Your task to perform on an android device: toggle data saver in the chrome app Image 0: 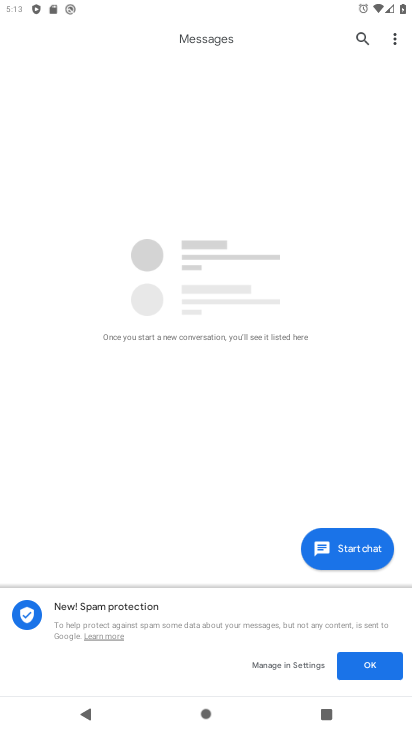
Step 0: press home button
Your task to perform on an android device: toggle data saver in the chrome app Image 1: 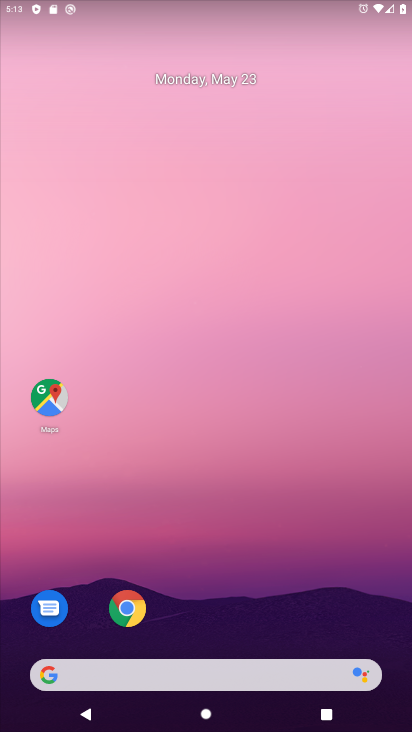
Step 1: drag from (203, 467) to (180, 310)
Your task to perform on an android device: toggle data saver in the chrome app Image 2: 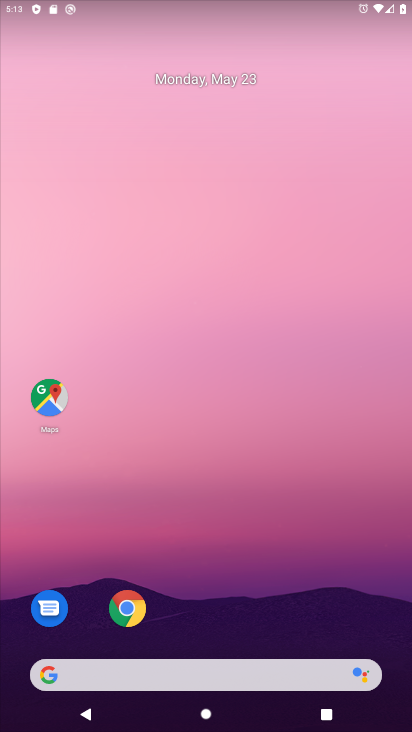
Step 2: drag from (222, 620) to (220, 257)
Your task to perform on an android device: toggle data saver in the chrome app Image 3: 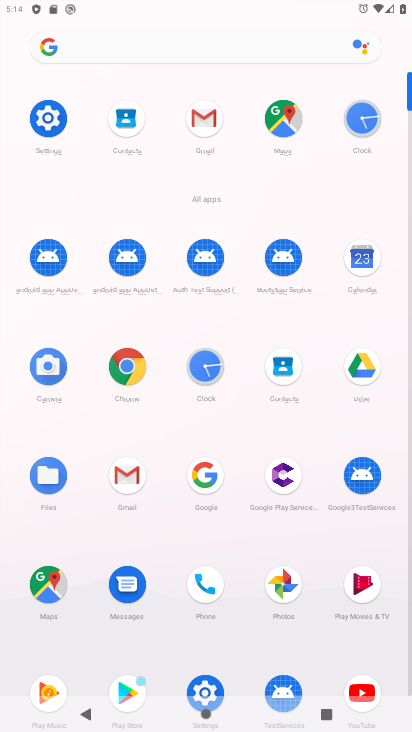
Step 3: click (129, 397)
Your task to perform on an android device: toggle data saver in the chrome app Image 4: 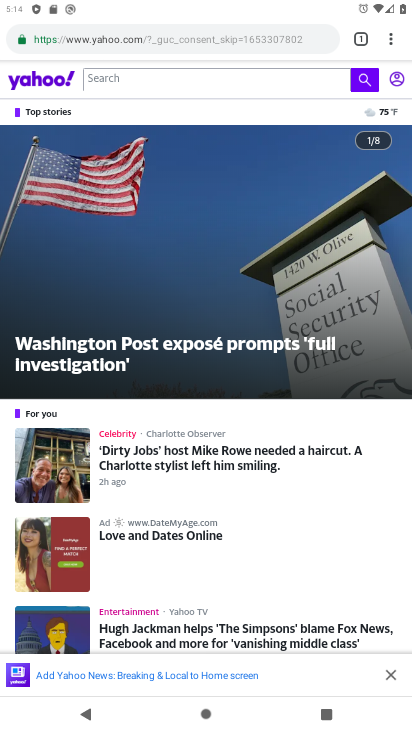
Step 4: click (399, 41)
Your task to perform on an android device: toggle data saver in the chrome app Image 5: 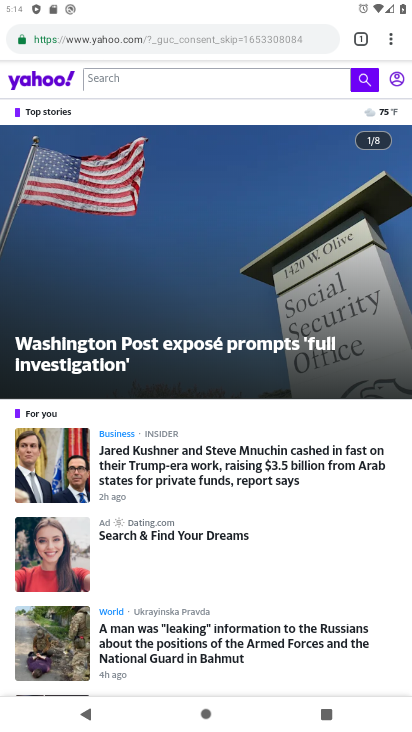
Step 5: click (389, 36)
Your task to perform on an android device: toggle data saver in the chrome app Image 6: 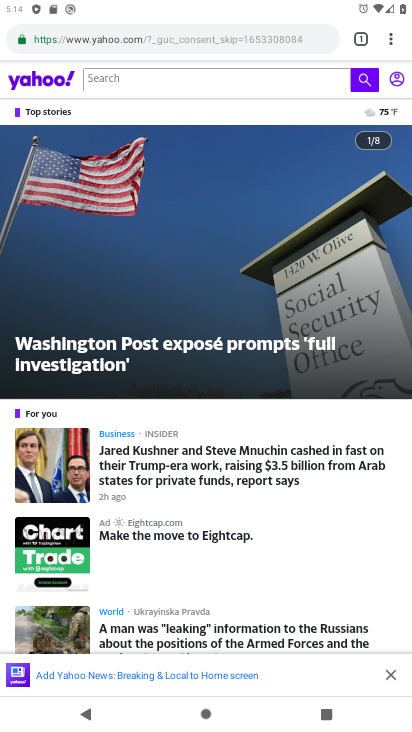
Step 6: click (391, 33)
Your task to perform on an android device: toggle data saver in the chrome app Image 7: 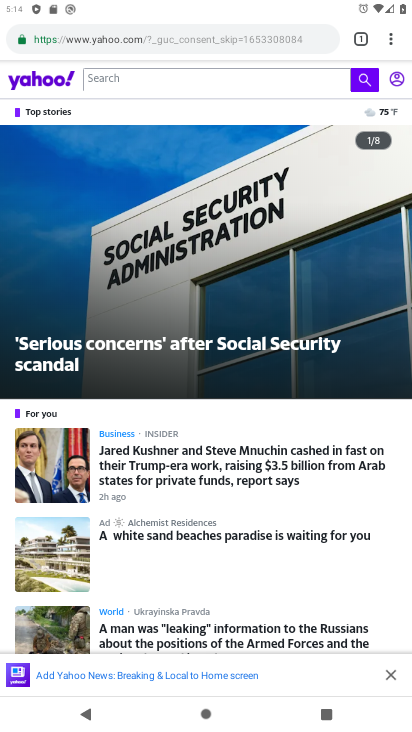
Step 7: click (395, 40)
Your task to perform on an android device: toggle data saver in the chrome app Image 8: 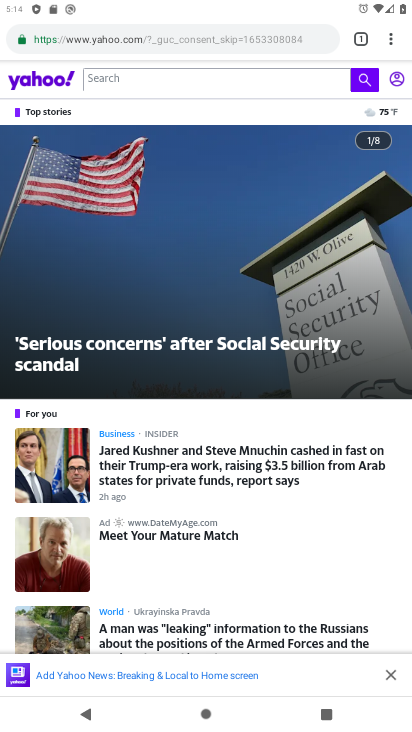
Step 8: click (394, 43)
Your task to perform on an android device: toggle data saver in the chrome app Image 9: 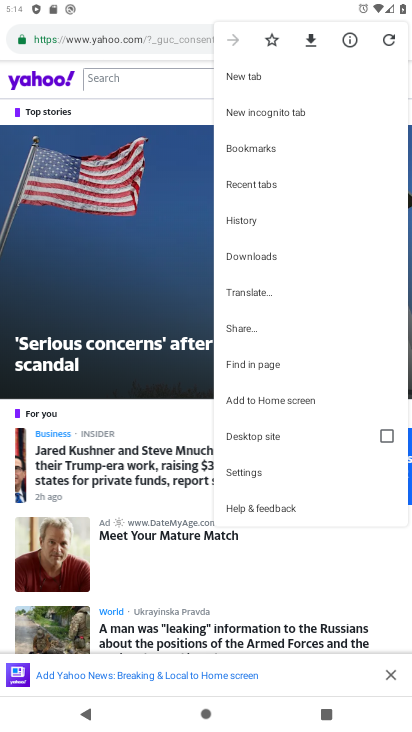
Step 9: click (266, 474)
Your task to perform on an android device: toggle data saver in the chrome app Image 10: 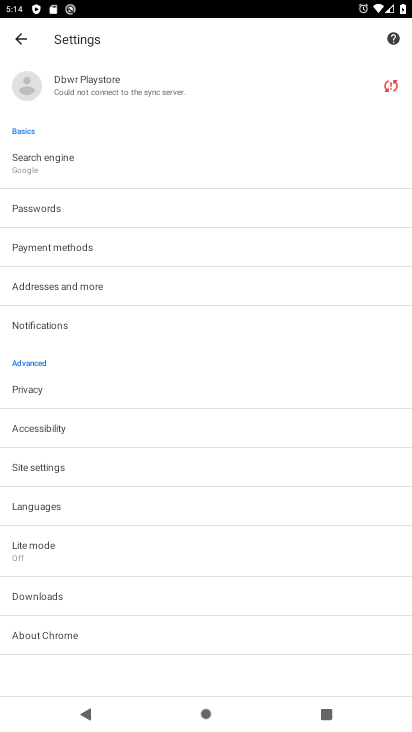
Step 10: click (38, 541)
Your task to perform on an android device: toggle data saver in the chrome app Image 11: 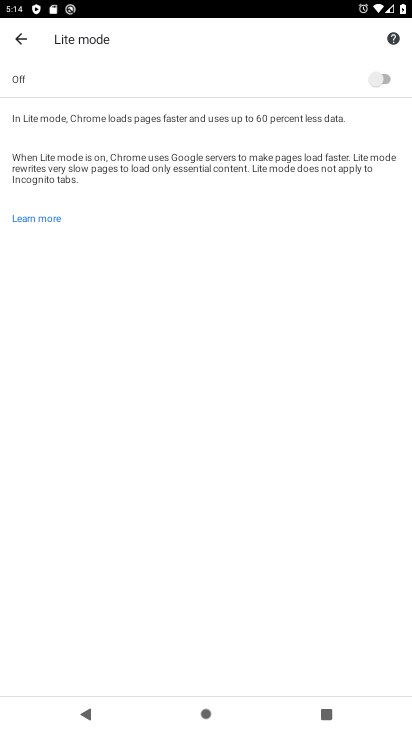
Step 11: click (377, 82)
Your task to perform on an android device: toggle data saver in the chrome app Image 12: 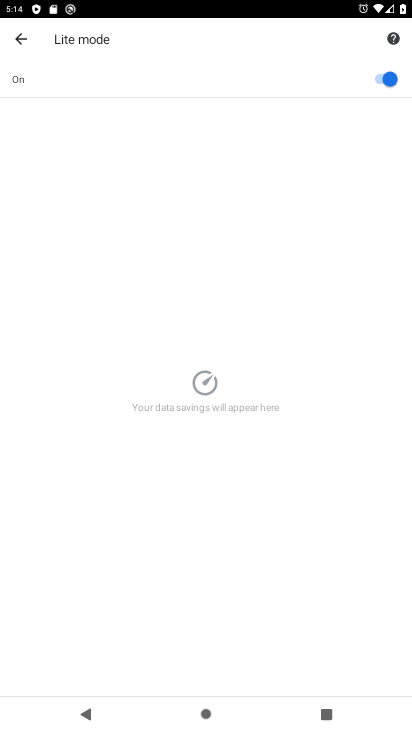
Step 12: task complete